Your task to perform on an android device: snooze an email in the gmail app Image 0: 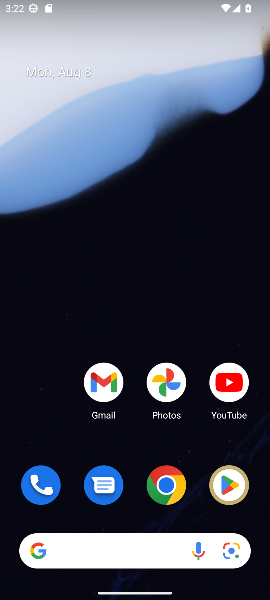
Step 0: drag from (213, 531) to (180, 149)
Your task to perform on an android device: snooze an email in the gmail app Image 1: 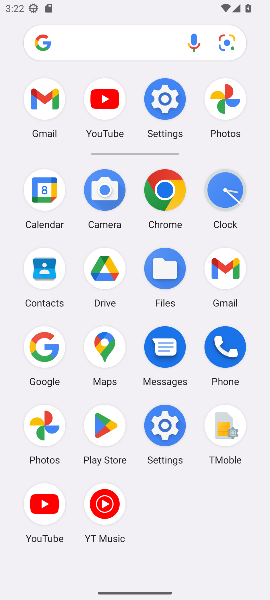
Step 1: click (215, 263)
Your task to perform on an android device: snooze an email in the gmail app Image 2: 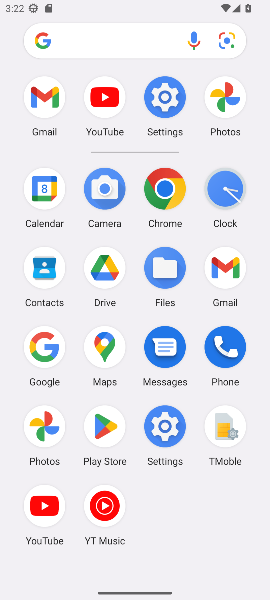
Step 2: click (231, 279)
Your task to perform on an android device: snooze an email in the gmail app Image 3: 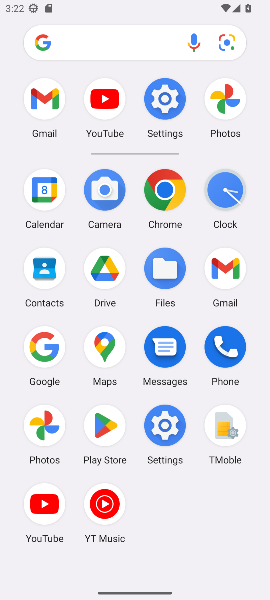
Step 3: click (231, 279)
Your task to perform on an android device: snooze an email in the gmail app Image 4: 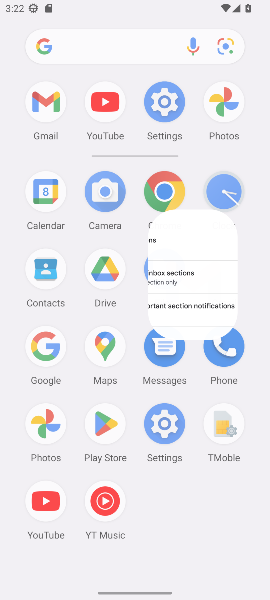
Step 4: click (232, 280)
Your task to perform on an android device: snooze an email in the gmail app Image 5: 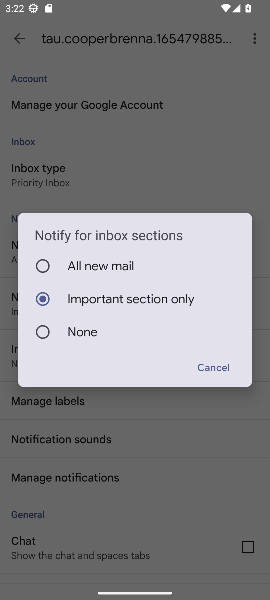
Step 5: click (207, 374)
Your task to perform on an android device: snooze an email in the gmail app Image 6: 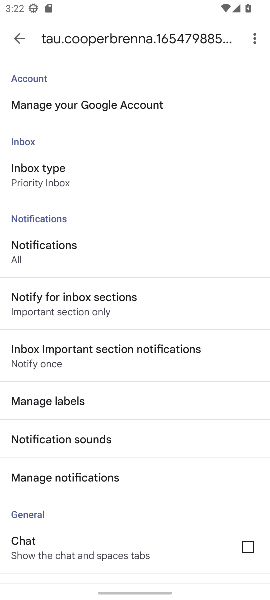
Step 6: click (11, 36)
Your task to perform on an android device: snooze an email in the gmail app Image 7: 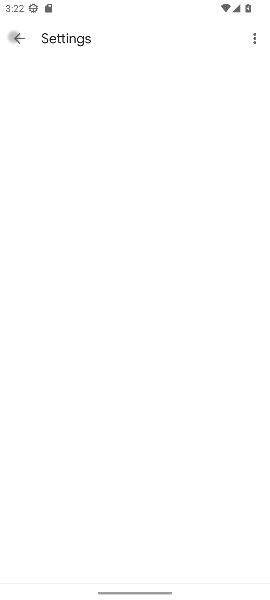
Step 7: click (11, 36)
Your task to perform on an android device: snooze an email in the gmail app Image 8: 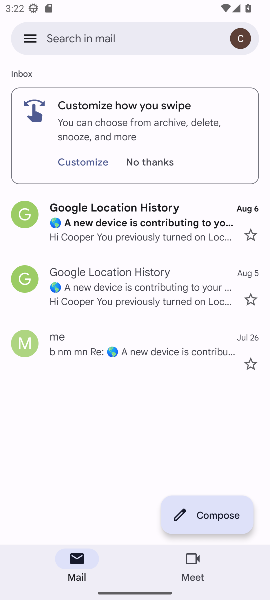
Step 8: click (13, 36)
Your task to perform on an android device: snooze an email in the gmail app Image 9: 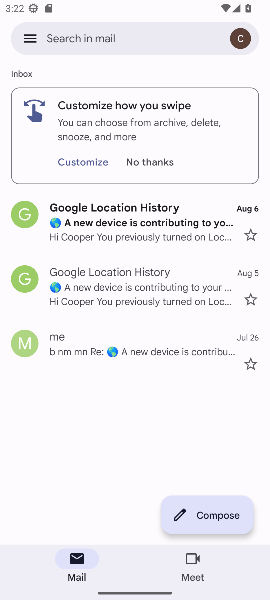
Step 9: click (135, 232)
Your task to perform on an android device: snooze an email in the gmail app Image 10: 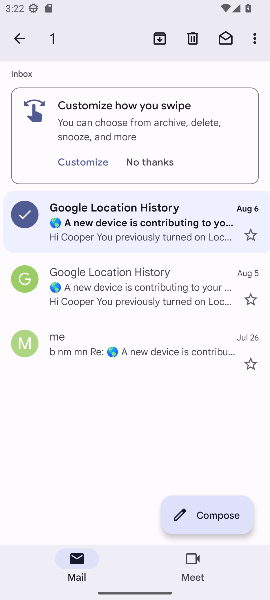
Step 10: click (251, 35)
Your task to perform on an android device: snooze an email in the gmail app Image 11: 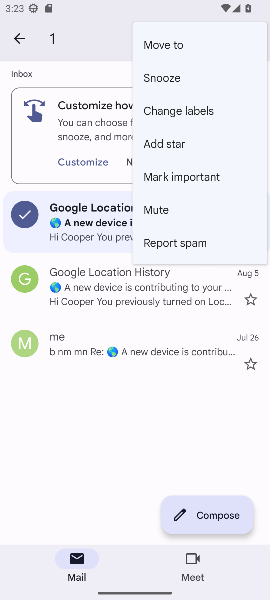
Step 11: click (163, 77)
Your task to perform on an android device: snooze an email in the gmail app Image 12: 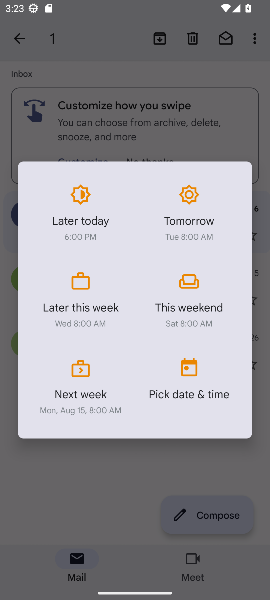
Step 12: click (80, 217)
Your task to perform on an android device: snooze an email in the gmail app Image 13: 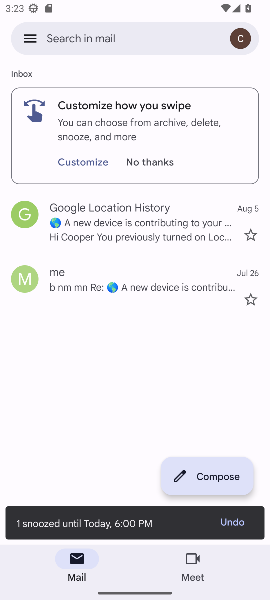
Step 13: task complete